Your task to perform on an android device: add a contact in the contacts app Image 0: 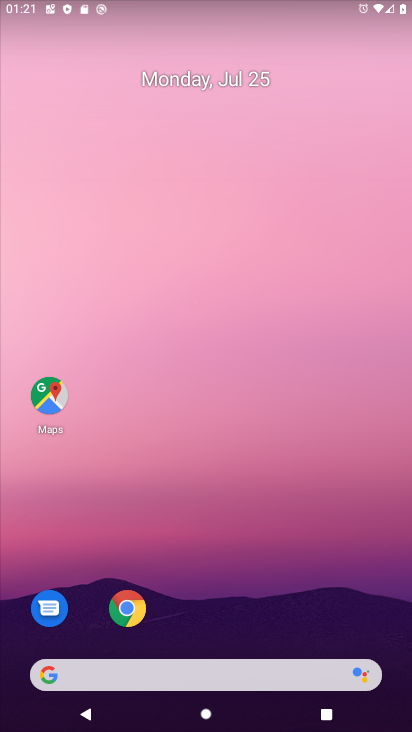
Step 0: drag from (202, 627) to (192, 10)
Your task to perform on an android device: add a contact in the contacts app Image 1: 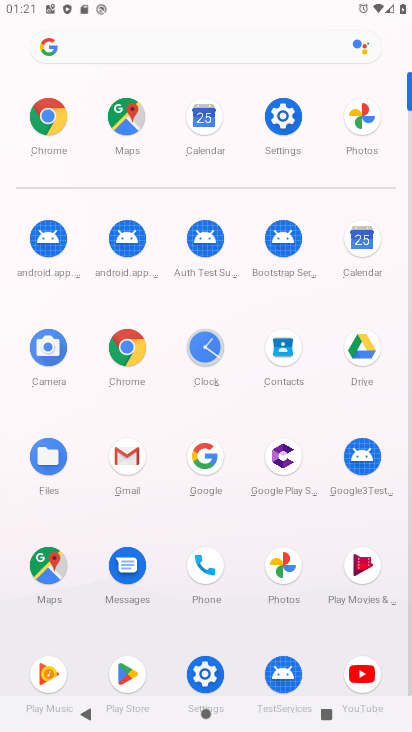
Step 1: click (212, 559)
Your task to perform on an android device: add a contact in the contacts app Image 2: 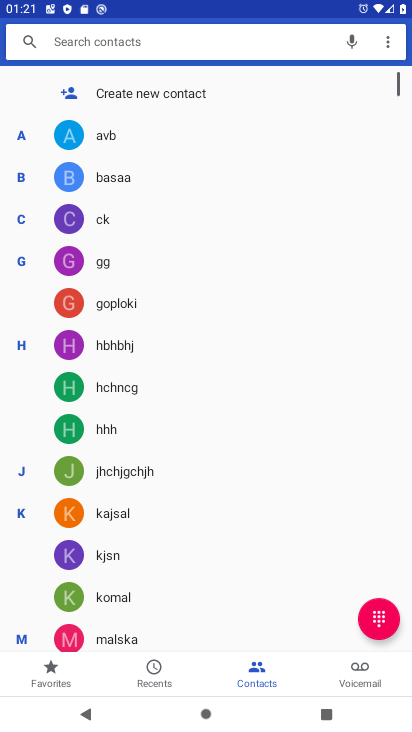
Step 2: click (278, 677)
Your task to perform on an android device: add a contact in the contacts app Image 3: 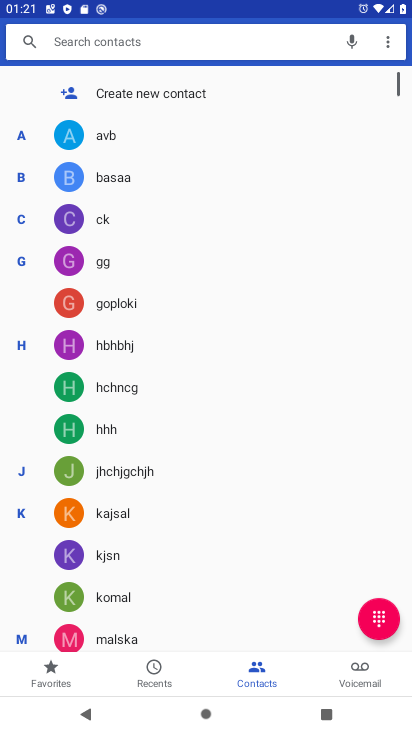
Step 3: click (196, 96)
Your task to perform on an android device: add a contact in the contacts app Image 4: 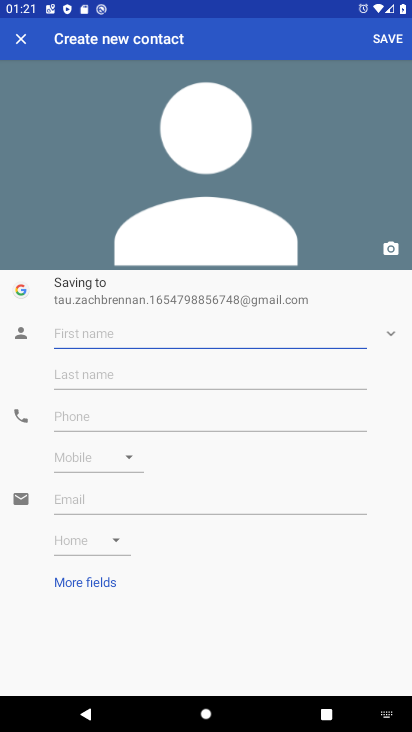
Step 4: type "rive "
Your task to perform on an android device: add a contact in the contacts app Image 5: 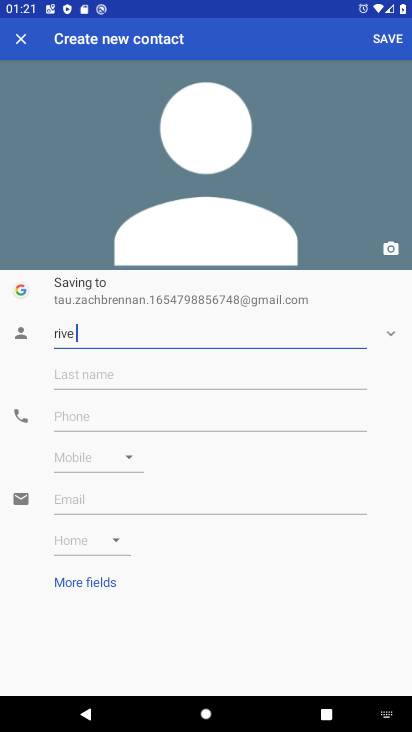
Step 5: type ""
Your task to perform on an android device: add a contact in the contacts app Image 6: 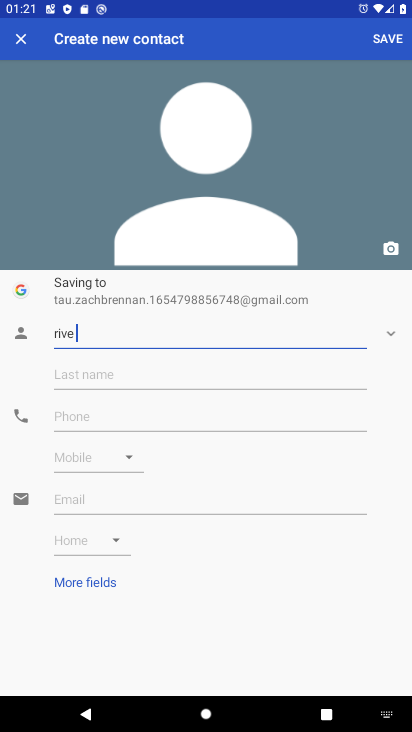
Step 6: click (148, 413)
Your task to perform on an android device: add a contact in the contacts app Image 7: 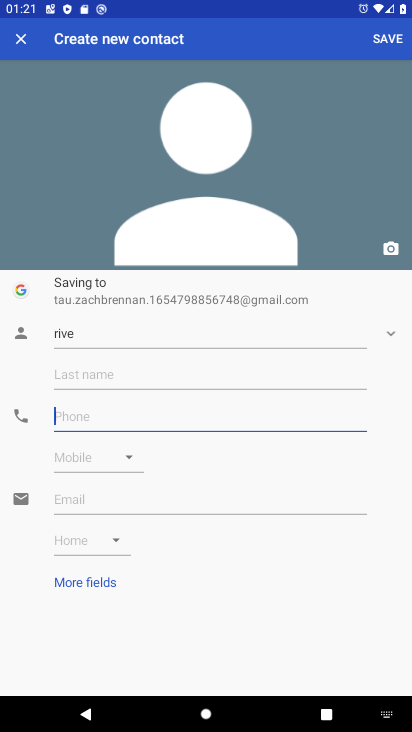
Step 7: type "9090"
Your task to perform on an android device: add a contact in the contacts app Image 8: 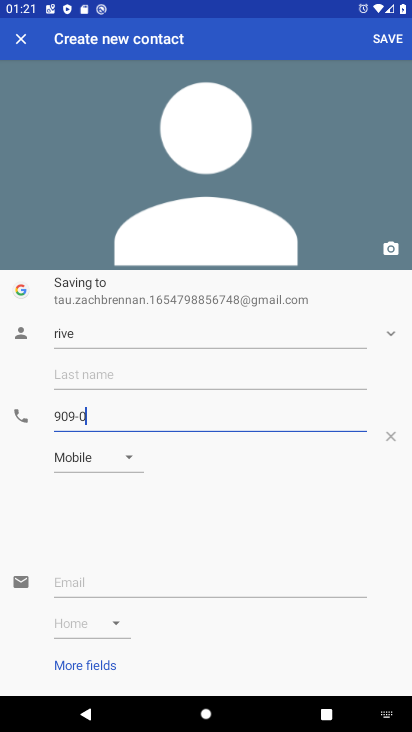
Step 8: type ""
Your task to perform on an android device: add a contact in the contacts app Image 9: 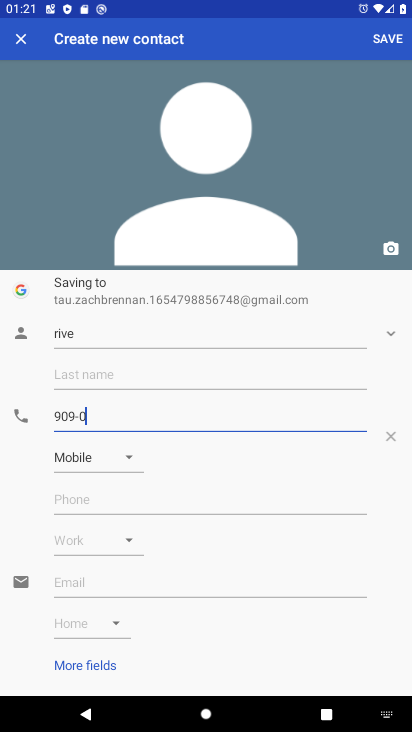
Step 9: click (384, 39)
Your task to perform on an android device: add a contact in the contacts app Image 10: 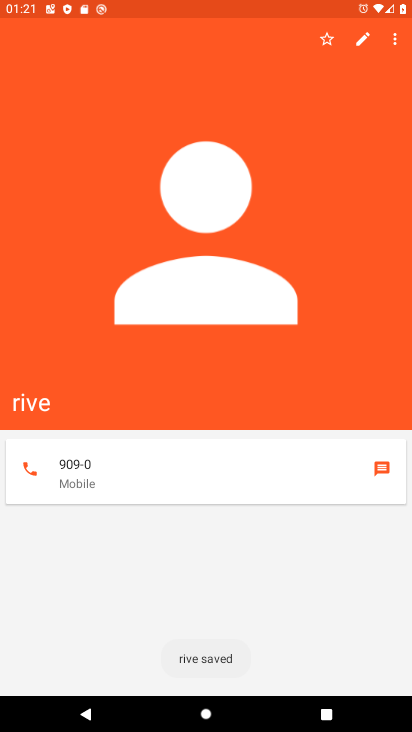
Step 10: task complete